Your task to perform on an android device: change the clock display to digital Image 0: 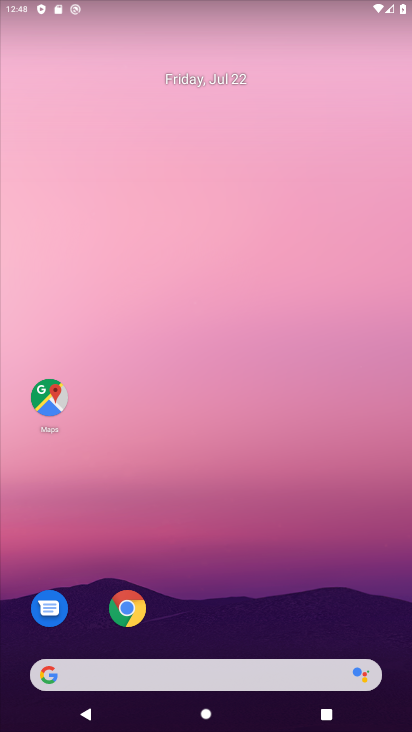
Step 0: drag from (399, 617) to (391, 60)
Your task to perform on an android device: change the clock display to digital Image 1: 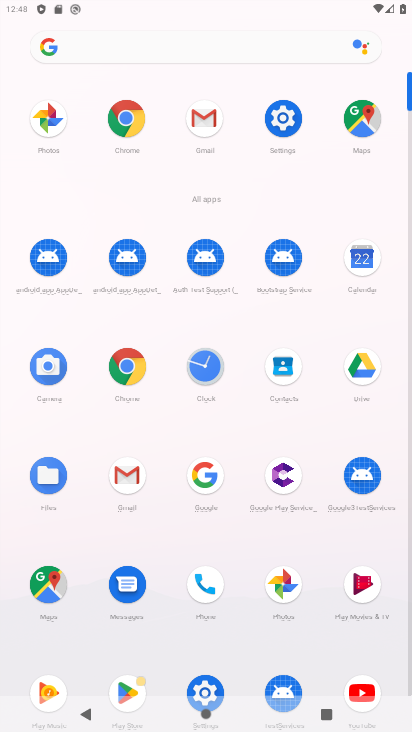
Step 1: click (201, 371)
Your task to perform on an android device: change the clock display to digital Image 2: 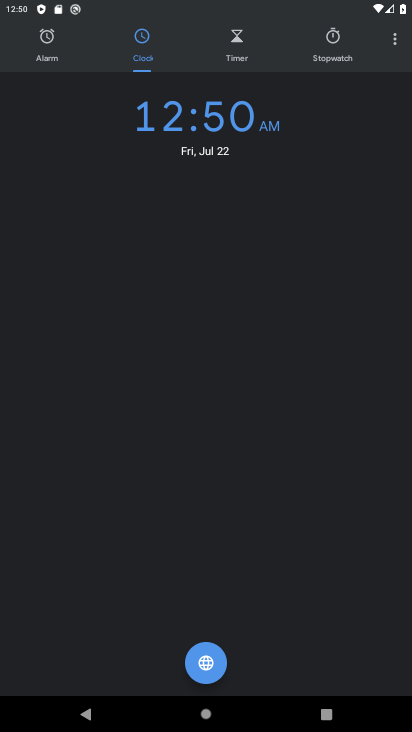
Step 2: click (397, 36)
Your task to perform on an android device: change the clock display to digital Image 3: 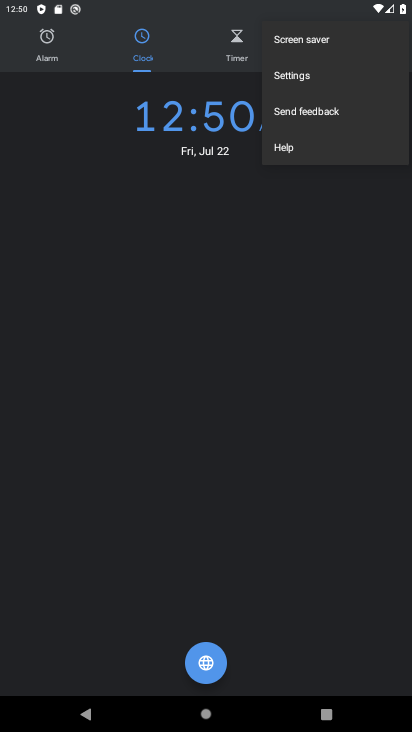
Step 3: press home button
Your task to perform on an android device: change the clock display to digital Image 4: 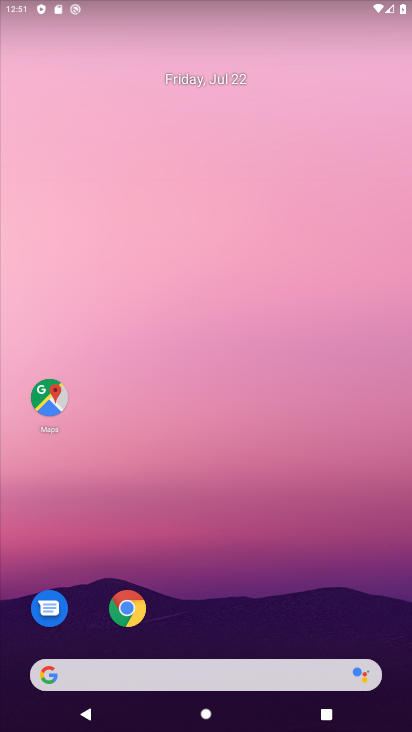
Step 4: click (339, 114)
Your task to perform on an android device: change the clock display to digital Image 5: 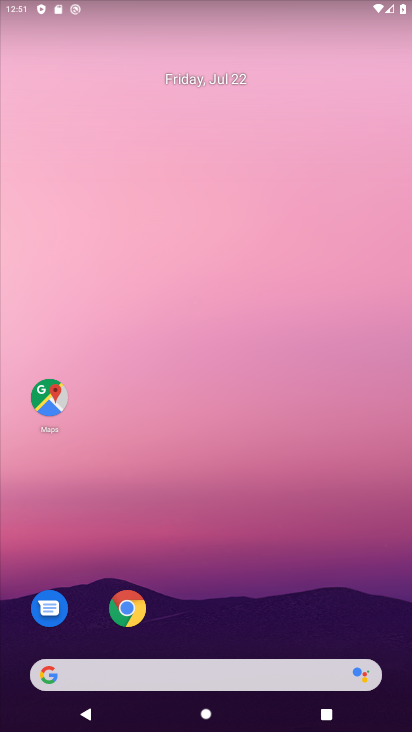
Step 5: drag from (390, 699) to (347, 150)
Your task to perform on an android device: change the clock display to digital Image 6: 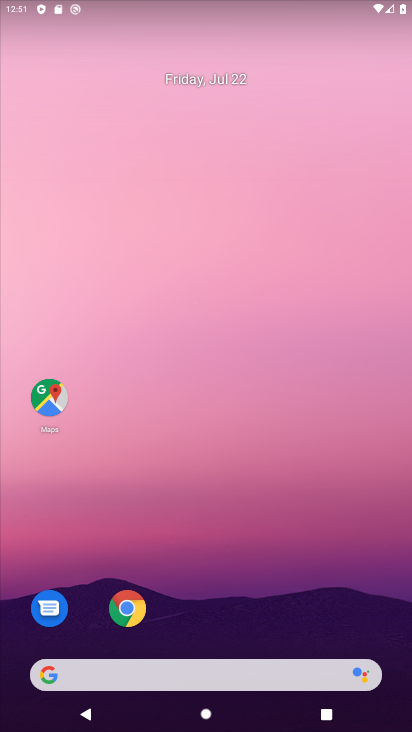
Step 6: drag from (385, 712) to (365, 36)
Your task to perform on an android device: change the clock display to digital Image 7: 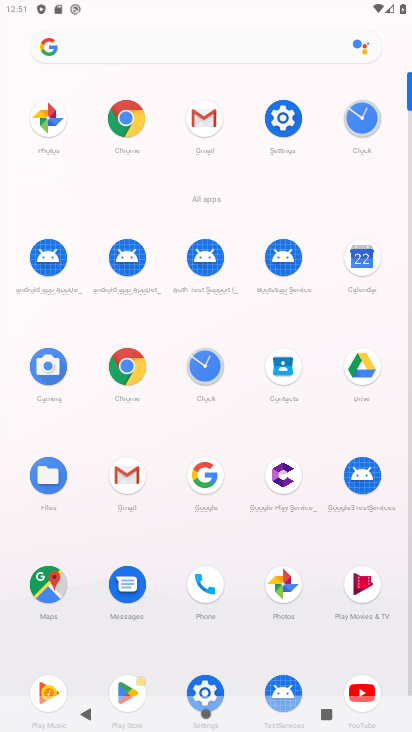
Step 7: click (201, 371)
Your task to perform on an android device: change the clock display to digital Image 8: 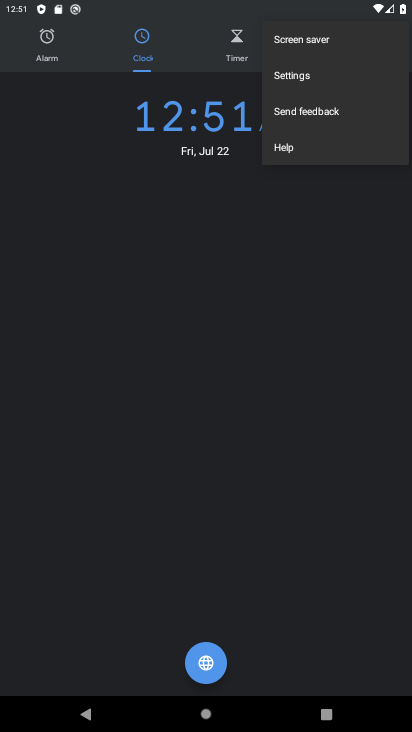
Step 8: click (295, 72)
Your task to perform on an android device: change the clock display to digital Image 9: 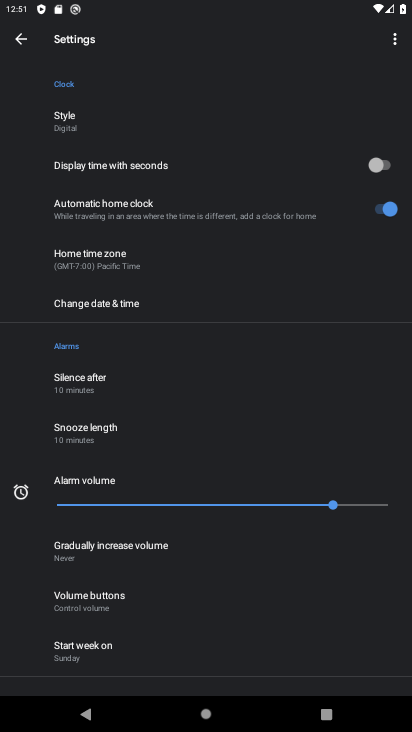
Step 9: click (65, 119)
Your task to perform on an android device: change the clock display to digital Image 10: 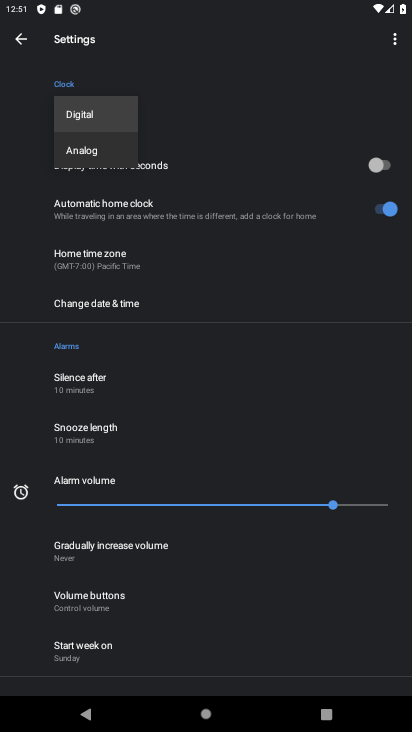
Step 10: click (66, 153)
Your task to perform on an android device: change the clock display to digital Image 11: 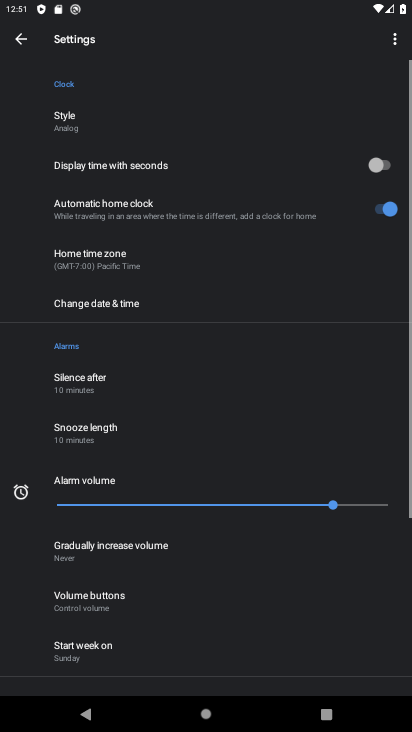
Step 11: task complete